Your task to perform on an android device: remove spam from my inbox in the gmail app Image 0: 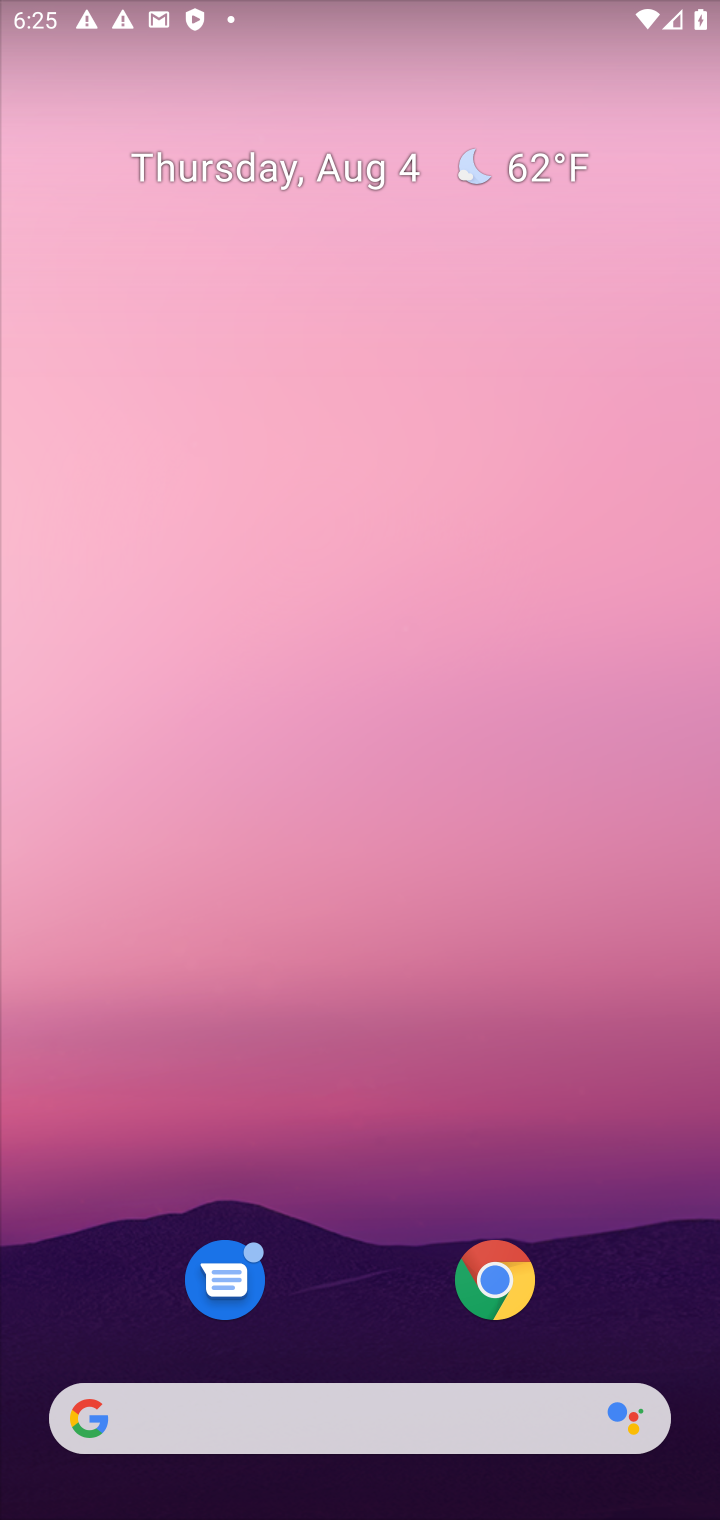
Step 0: drag from (356, 1315) to (381, 16)
Your task to perform on an android device: remove spam from my inbox in the gmail app Image 1: 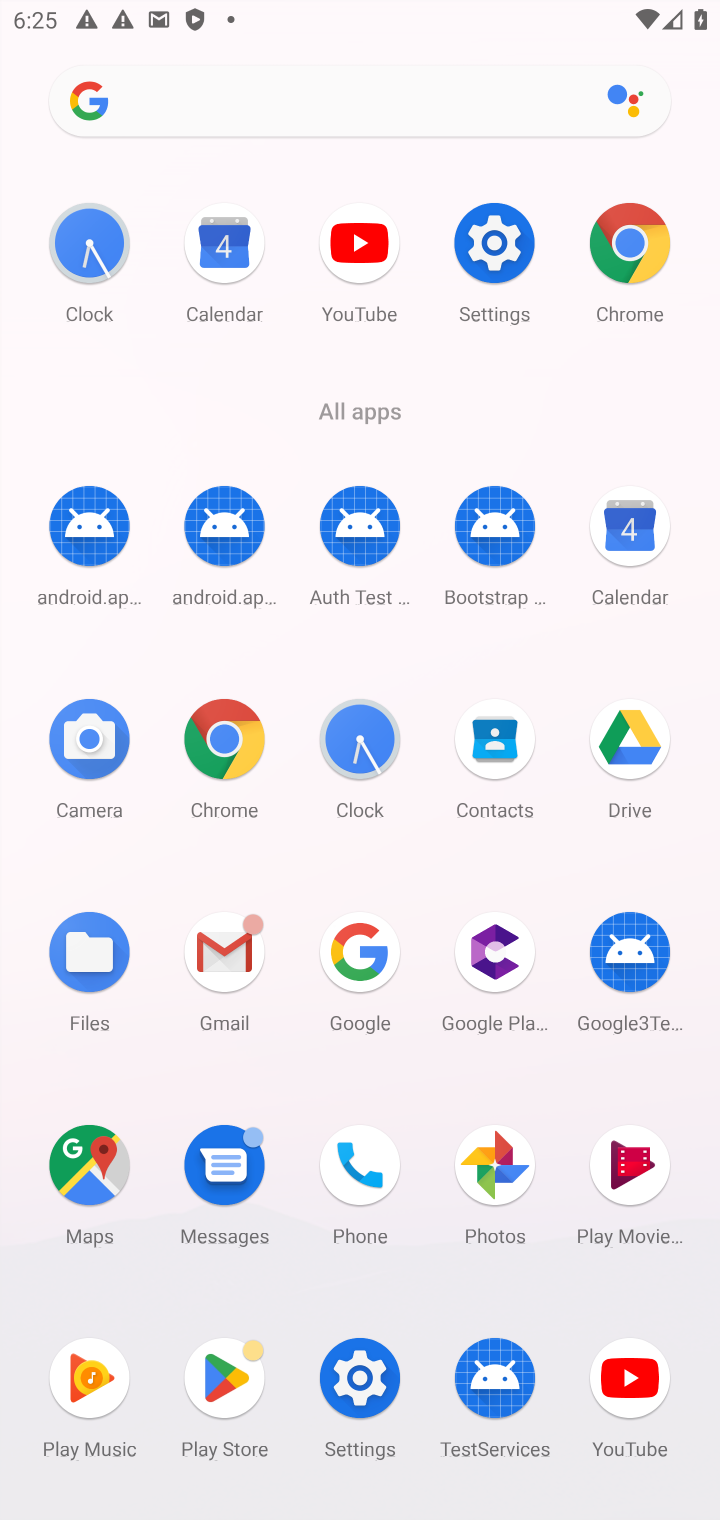
Step 1: click (231, 1008)
Your task to perform on an android device: remove spam from my inbox in the gmail app Image 2: 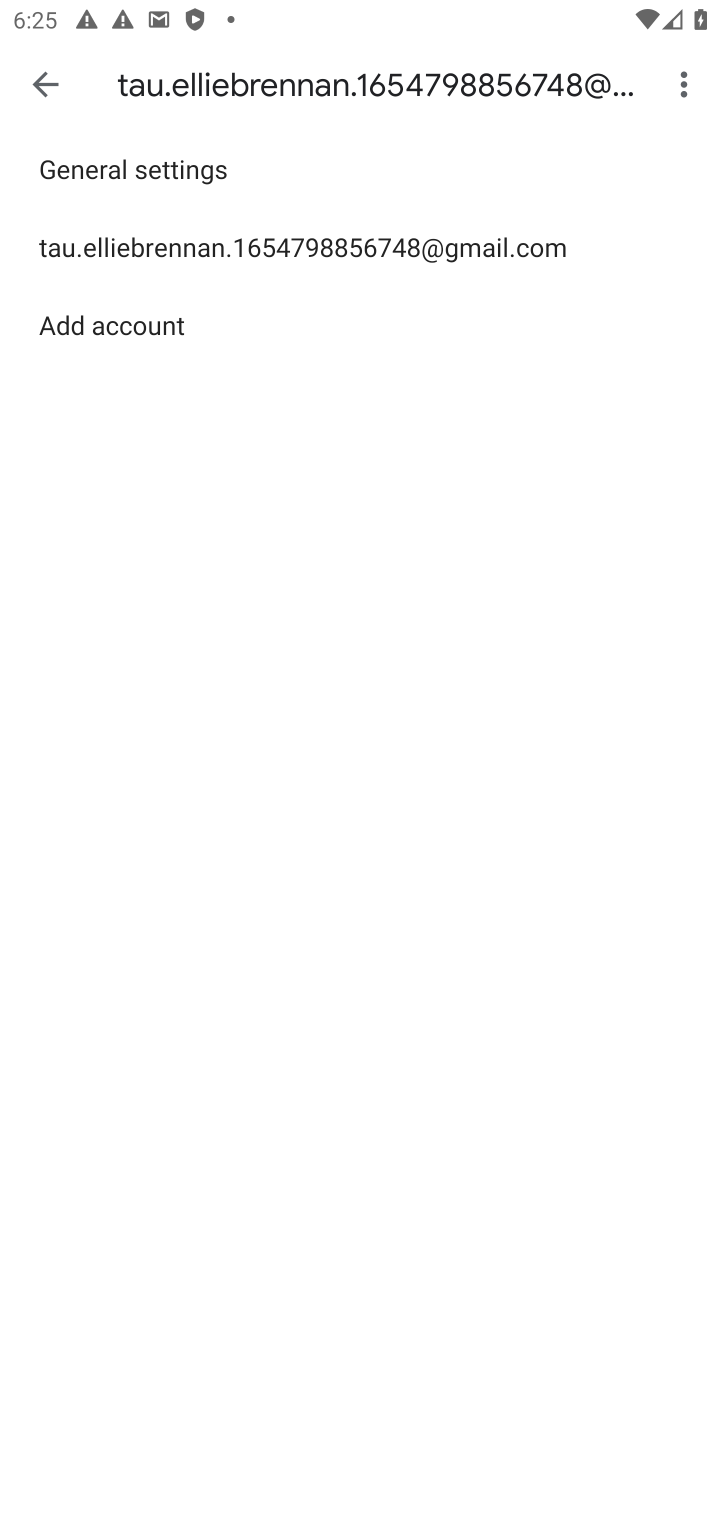
Step 2: click (211, 240)
Your task to perform on an android device: remove spam from my inbox in the gmail app Image 3: 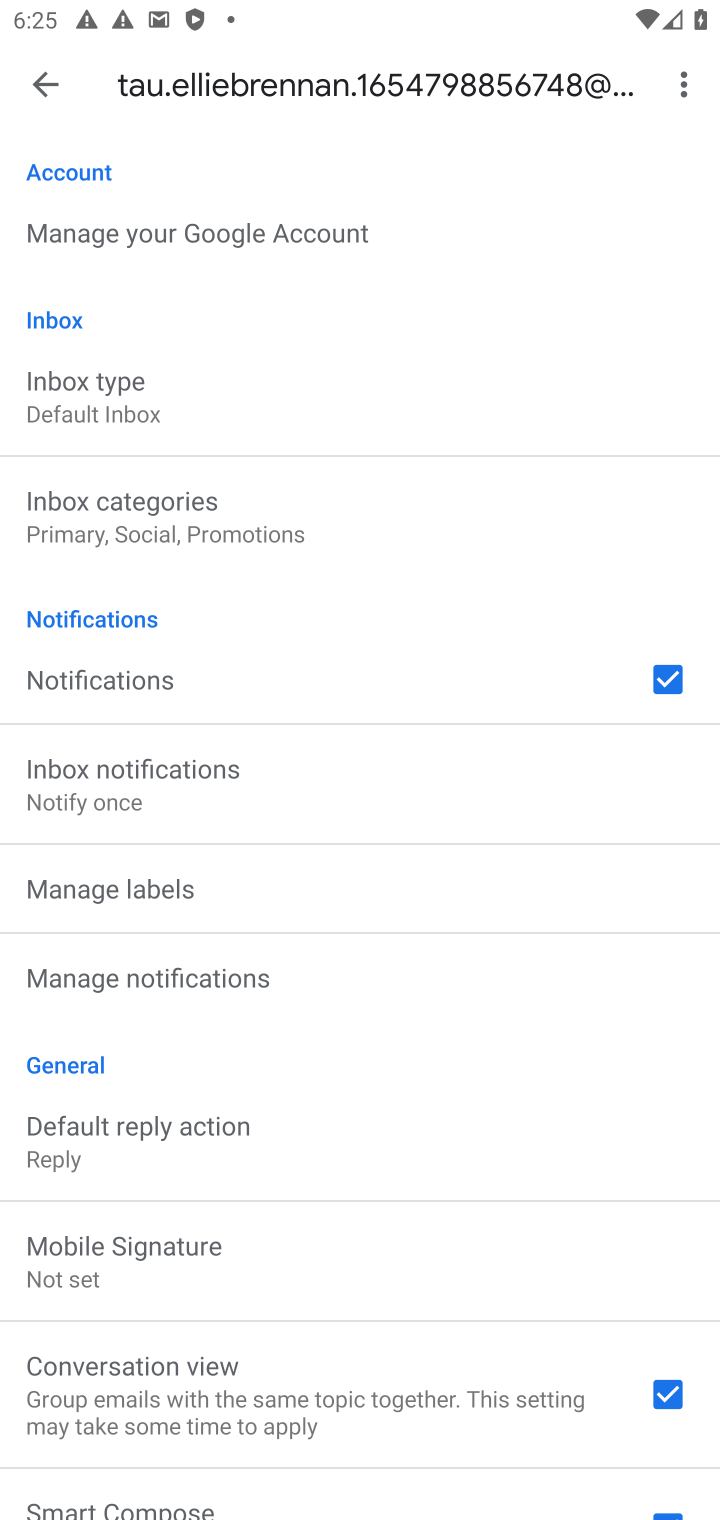
Step 3: click (36, 75)
Your task to perform on an android device: remove spam from my inbox in the gmail app Image 4: 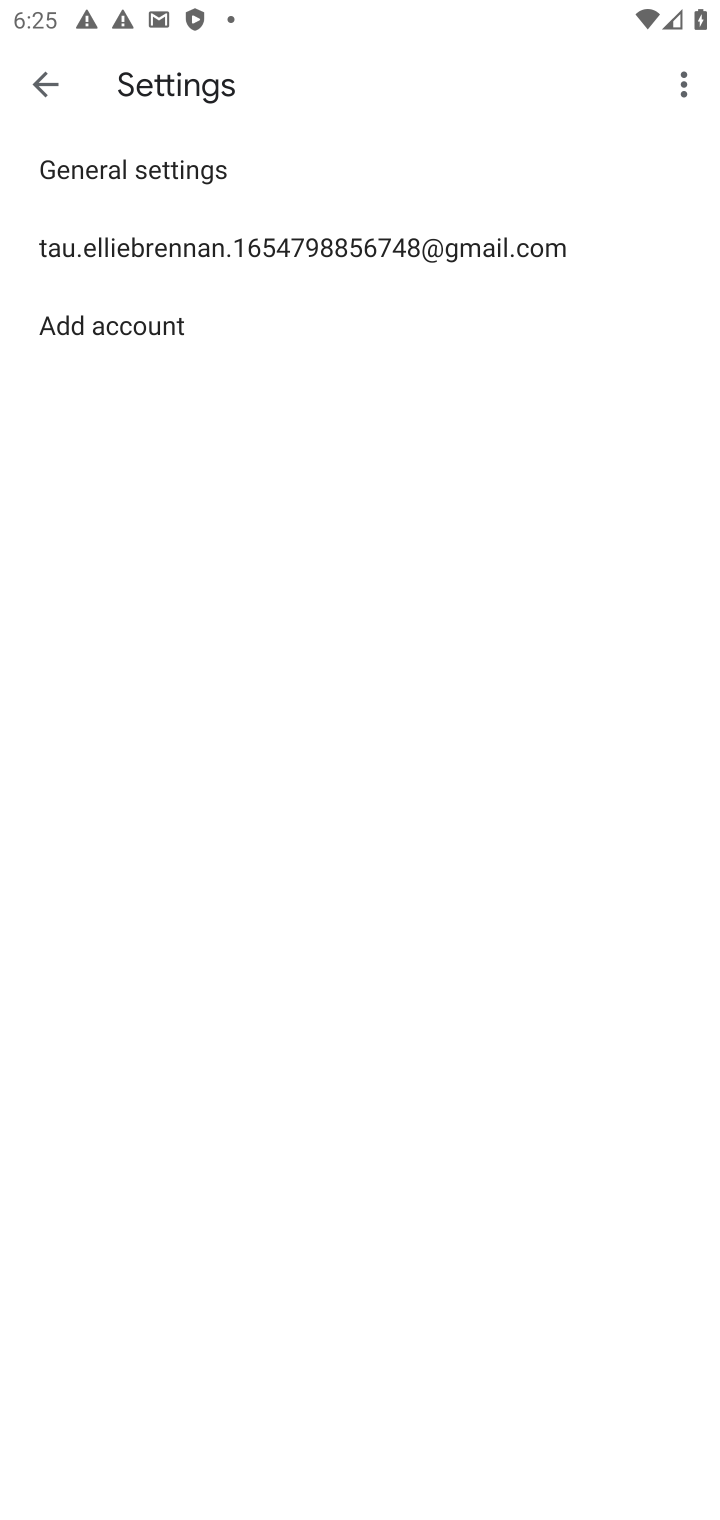
Step 4: click (50, 86)
Your task to perform on an android device: remove spam from my inbox in the gmail app Image 5: 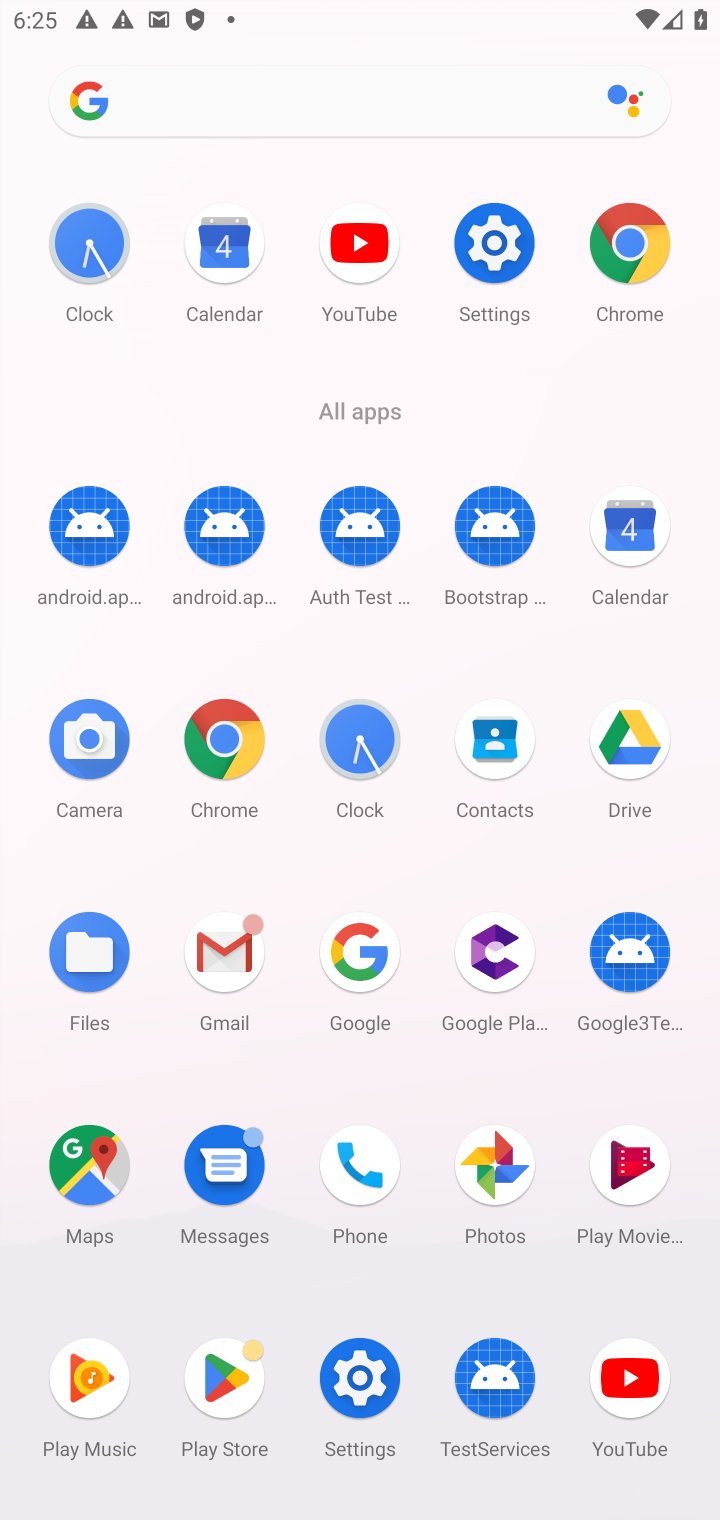
Step 5: click (221, 953)
Your task to perform on an android device: remove spam from my inbox in the gmail app Image 6: 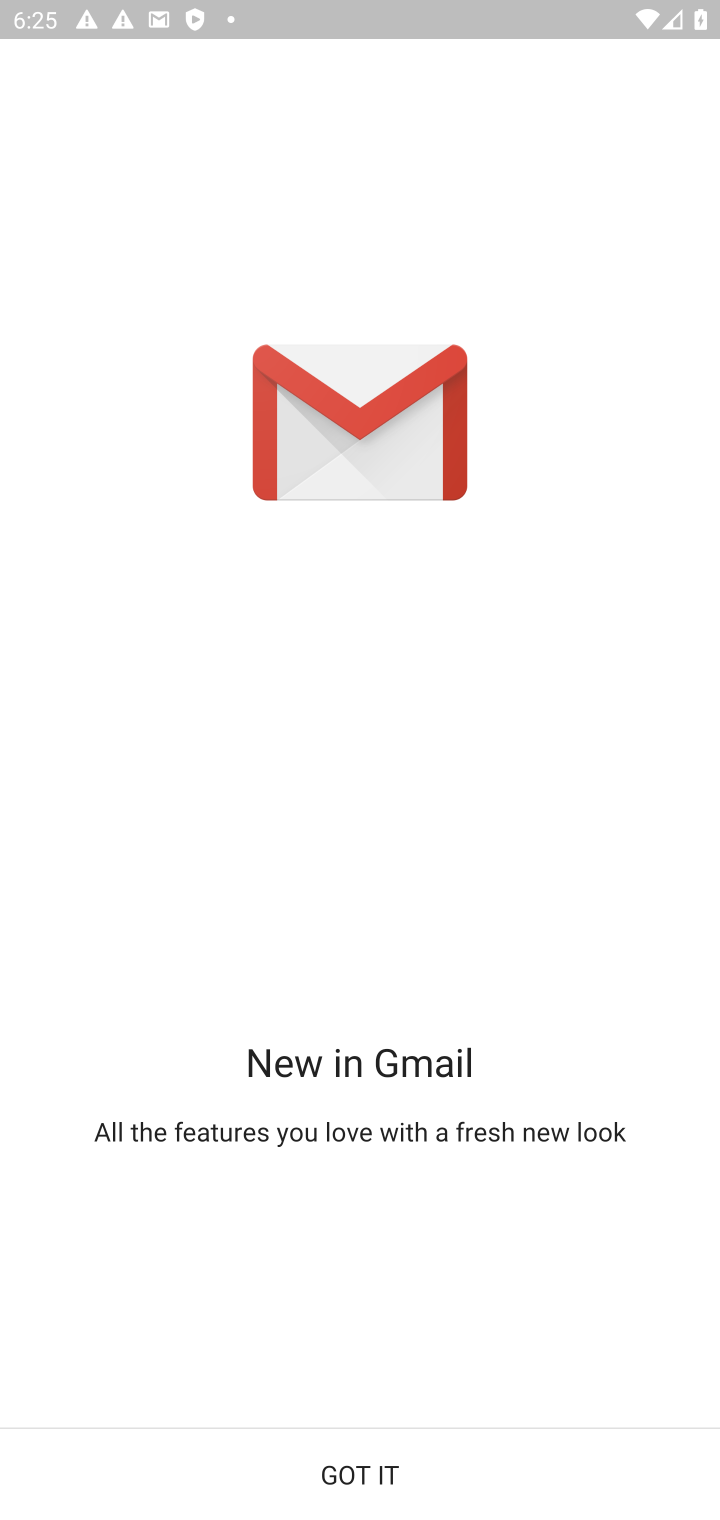
Step 6: click (343, 1471)
Your task to perform on an android device: remove spam from my inbox in the gmail app Image 7: 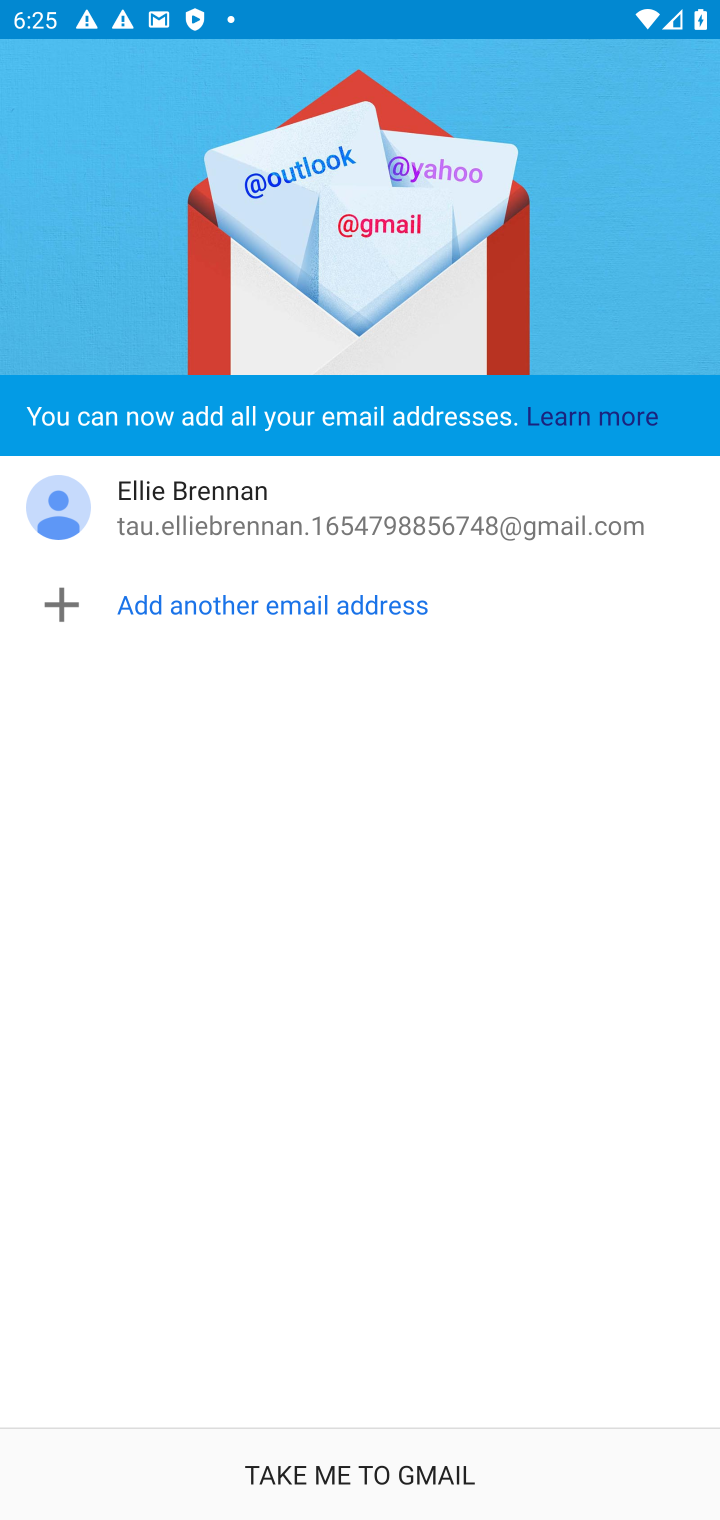
Step 7: click (343, 1471)
Your task to perform on an android device: remove spam from my inbox in the gmail app Image 8: 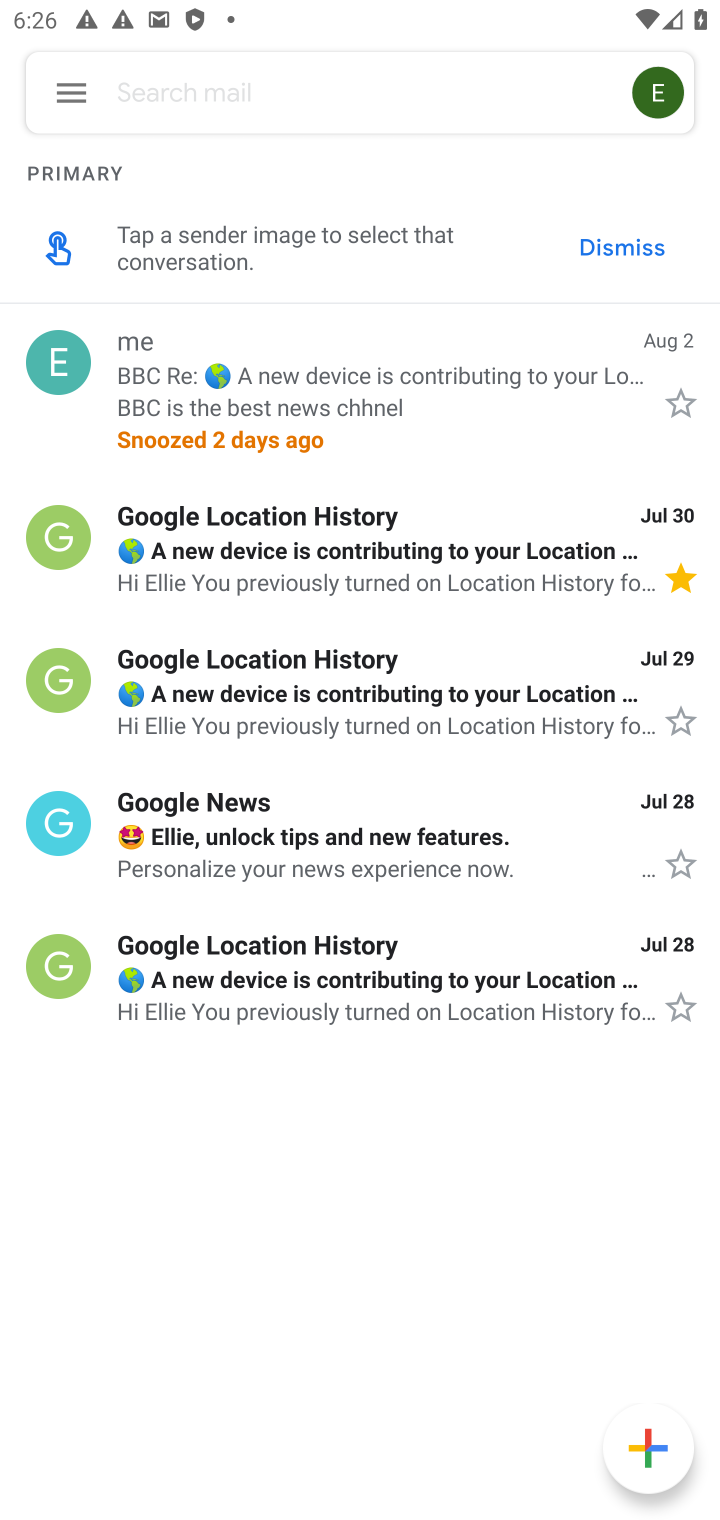
Step 8: click (63, 78)
Your task to perform on an android device: remove spam from my inbox in the gmail app Image 9: 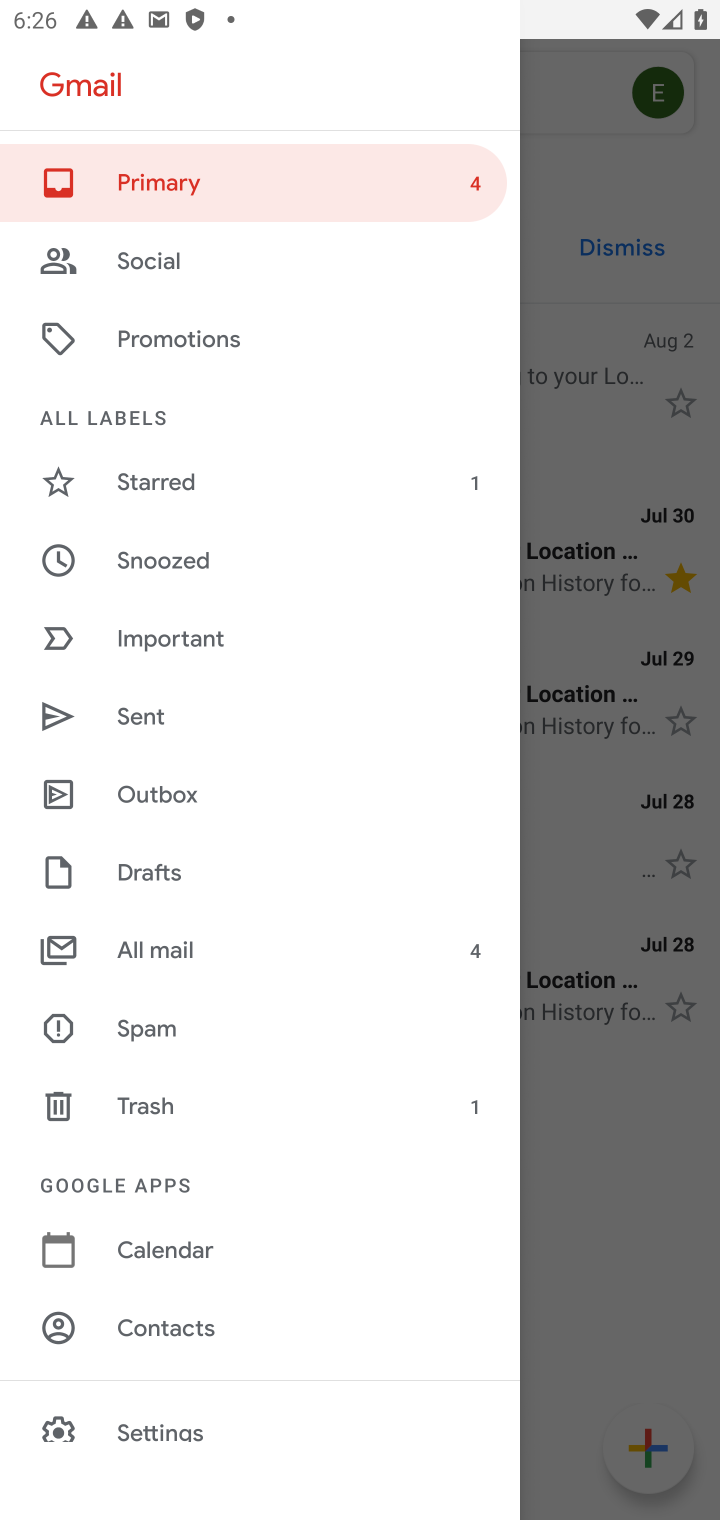
Step 9: click (135, 1029)
Your task to perform on an android device: remove spam from my inbox in the gmail app Image 10: 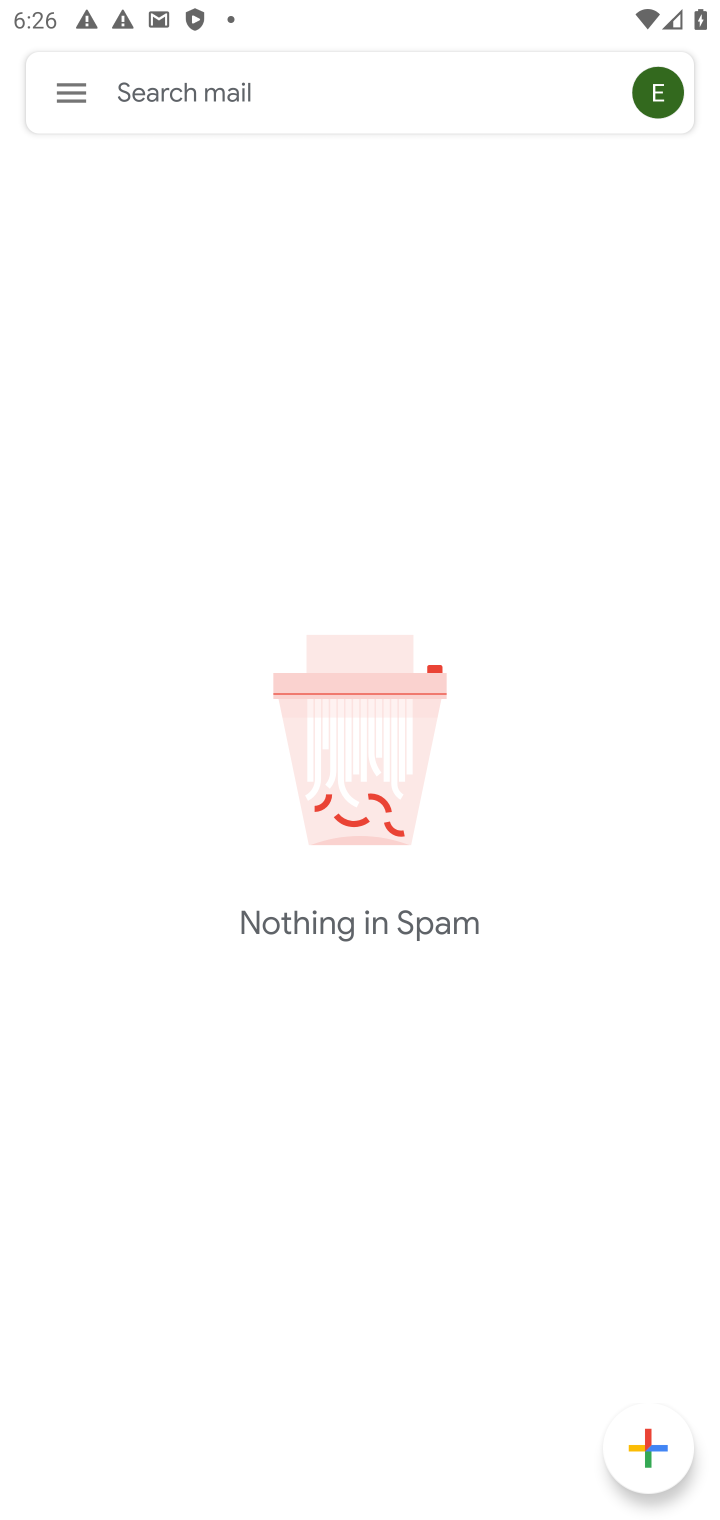
Step 10: task complete